Your task to perform on an android device: Open Yahoo.com Image 0: 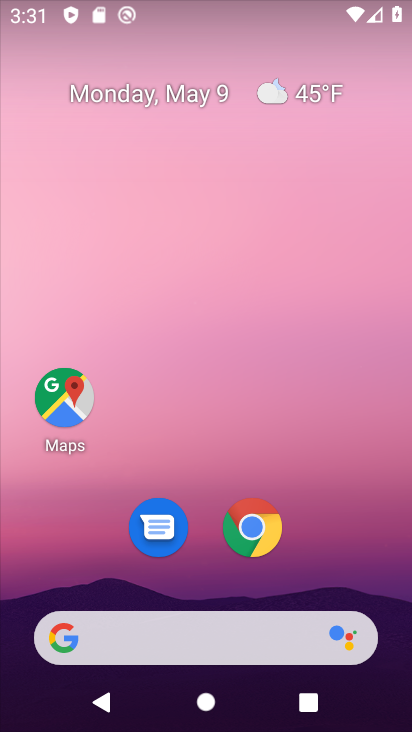
Step 0: drag from (336, 563) to (300, 210)
Your task to perform on an android device: Open Yahoo.com Image 1: 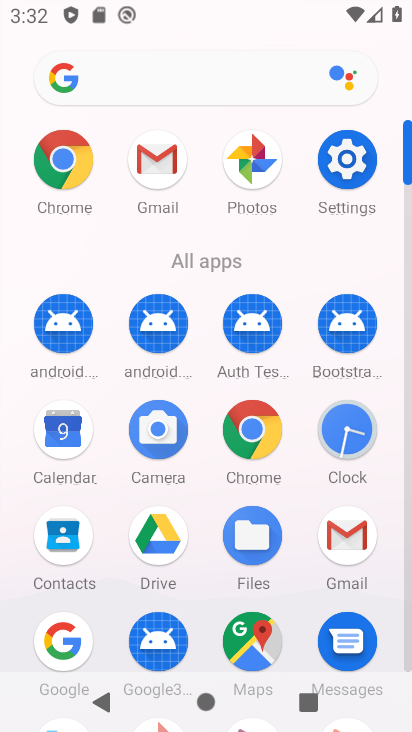
Step 1: click (71, 147)
Your task to perform on an android device: Open Yahoo.com Image 2: 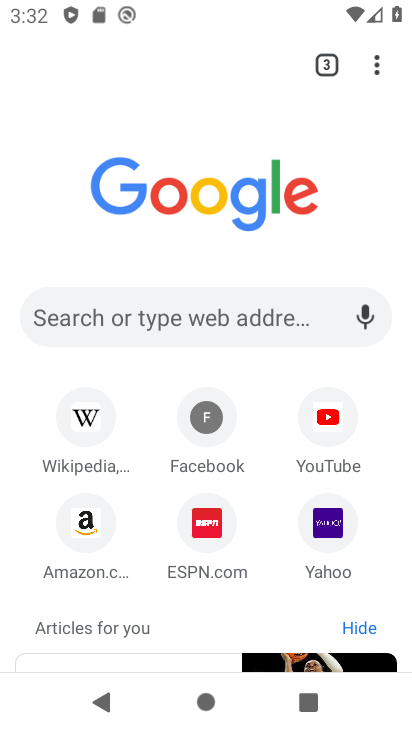
Step 2: click (157, 310)
Your task to perform on an android device: Open Yahoo.com Image 3: 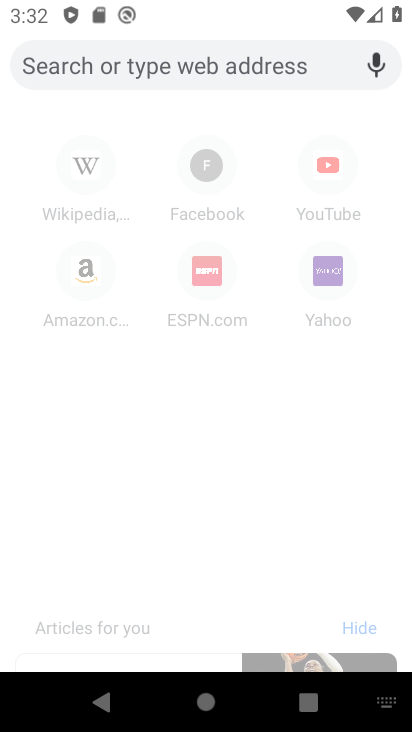
Step 3: type "Yahoo.com"
Your task to perform on an android device: Open Yahoo.com Image 4: 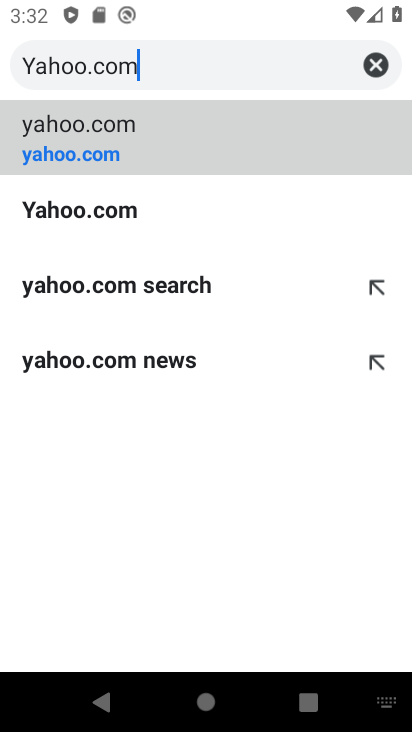
Step 4: click (67, 160)
Your task to perform on an android device: Open Yahoo.com Image 5: 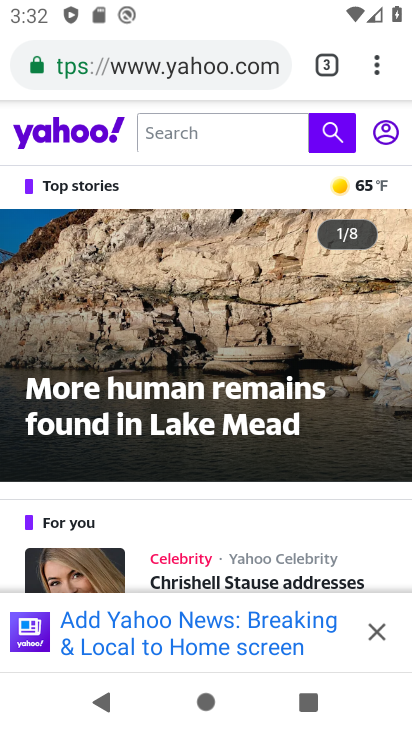
Step 5: task complete